Your task to perform on an android device: open app "Pluto TV - Live TV and Movies" (install if not already installed) and enter user name: "wools@yahoo.com" and password: "misplacing" Image 0: 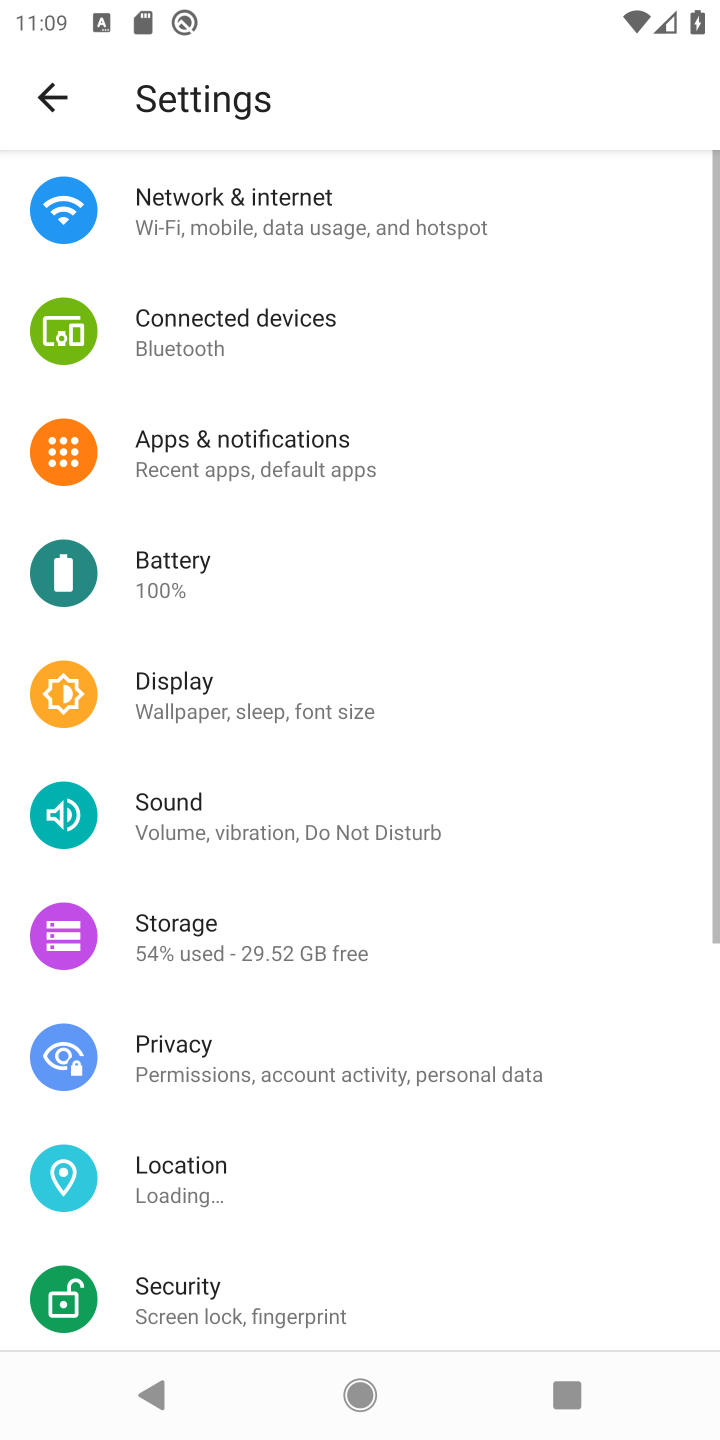
Step 0: press home button
Your task to perform on an android device: open app "Pluto TV - Live TV and Movies" (install if not already installed) and enter user name: "wools@yahoo.com" and password: "misplacing" Image 1: 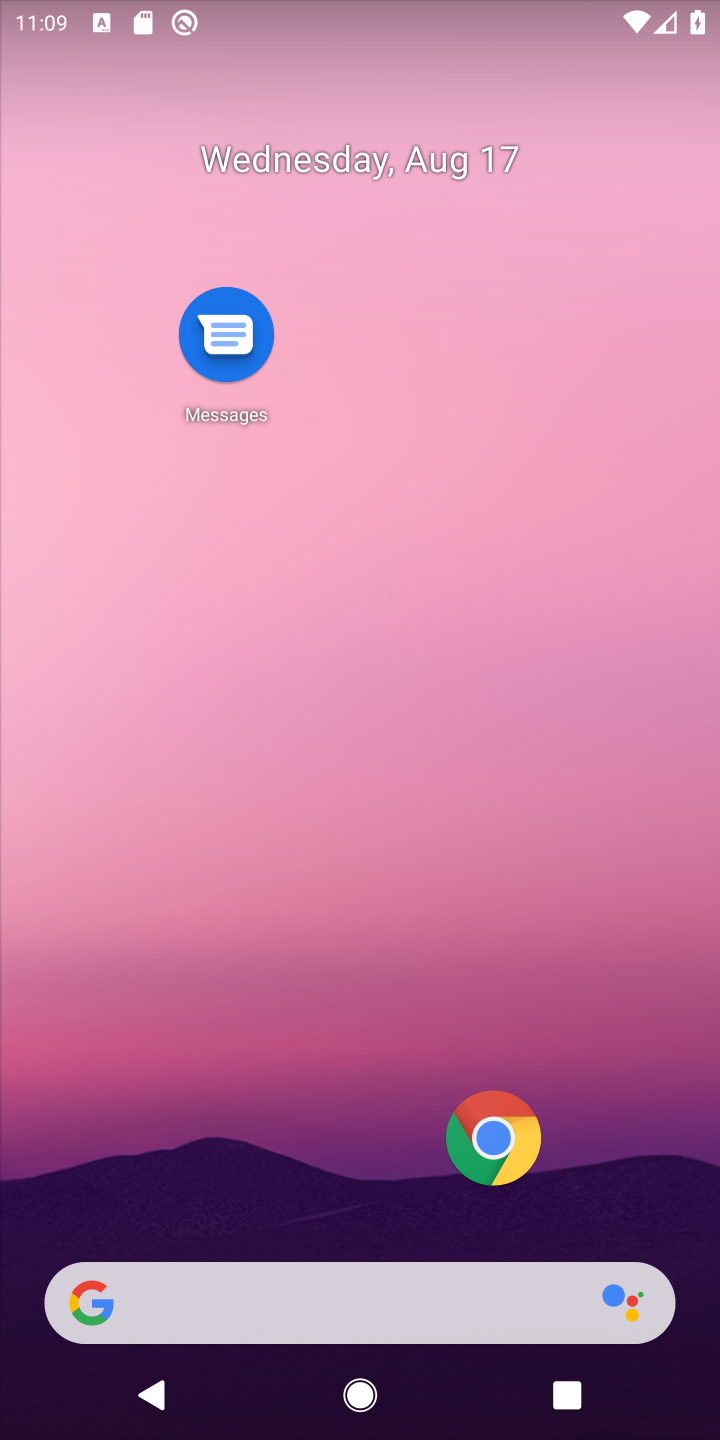
Step 1: drag from (309, 1201) to (309, 147)
Your task to perform on an android device: open app "Pluto TV - Live TV and Movies" (install if not already installed) and enter user name: "wools@yahoo.com" and password: "misplacing" Image 2: 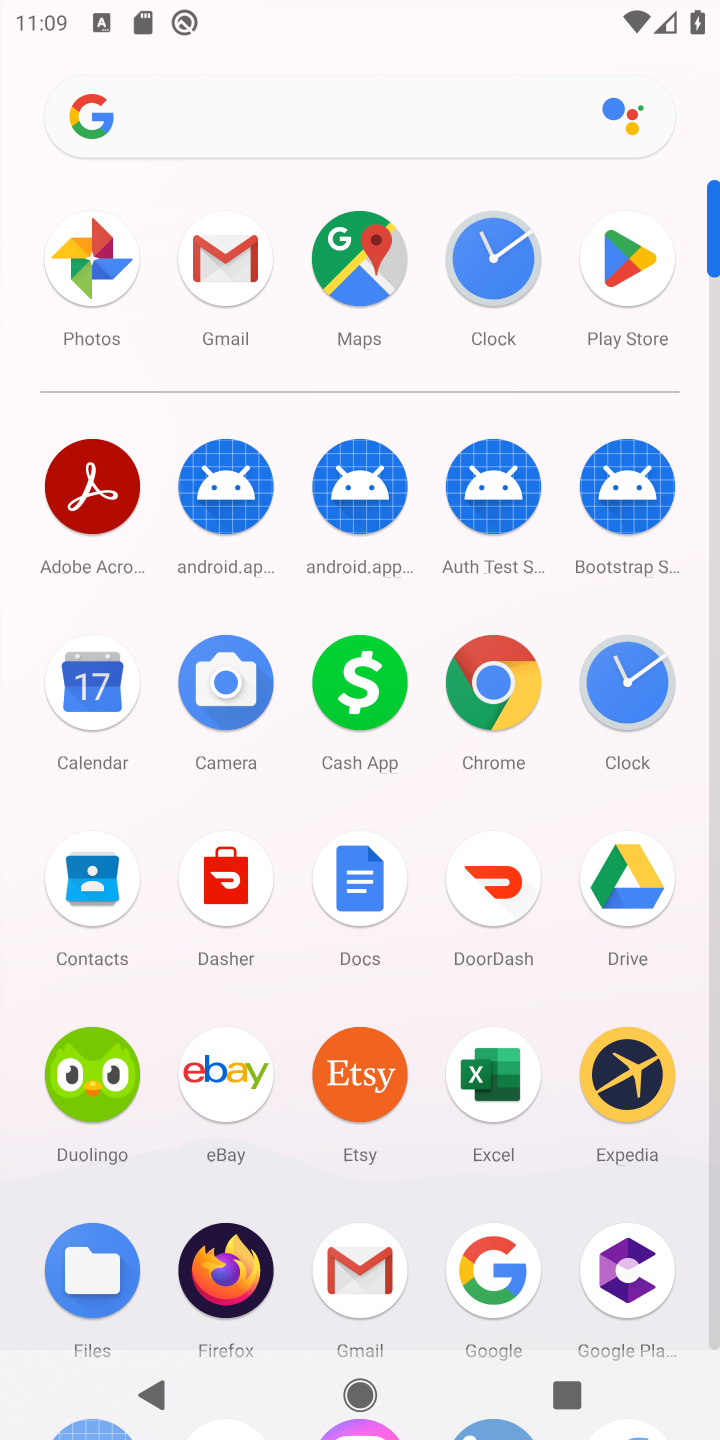
Step 2: click (611, 265)
Your task to perform on an android device: open app "Pluto TV - Live TV and Movies" (install if not already installed) and enter user name: "wools@yahoo.com" and password: "misplacing" Image 3: 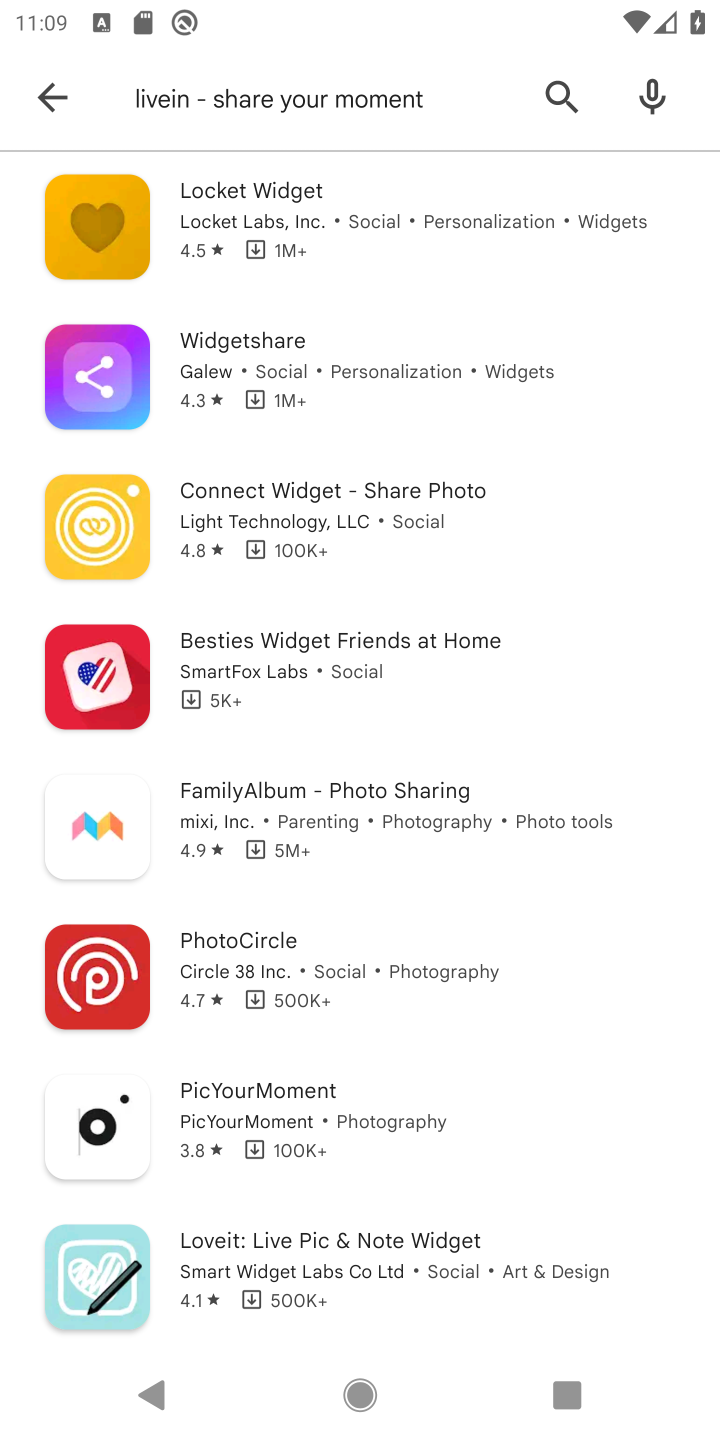
Step 3: click (80, 86)
Your task to perform on an android device: open app "Pluto TV - Live TV and Movies" (install if not already installed) and enter user name: "wools@yahoo.com" and password: "misplacing" Image 4: 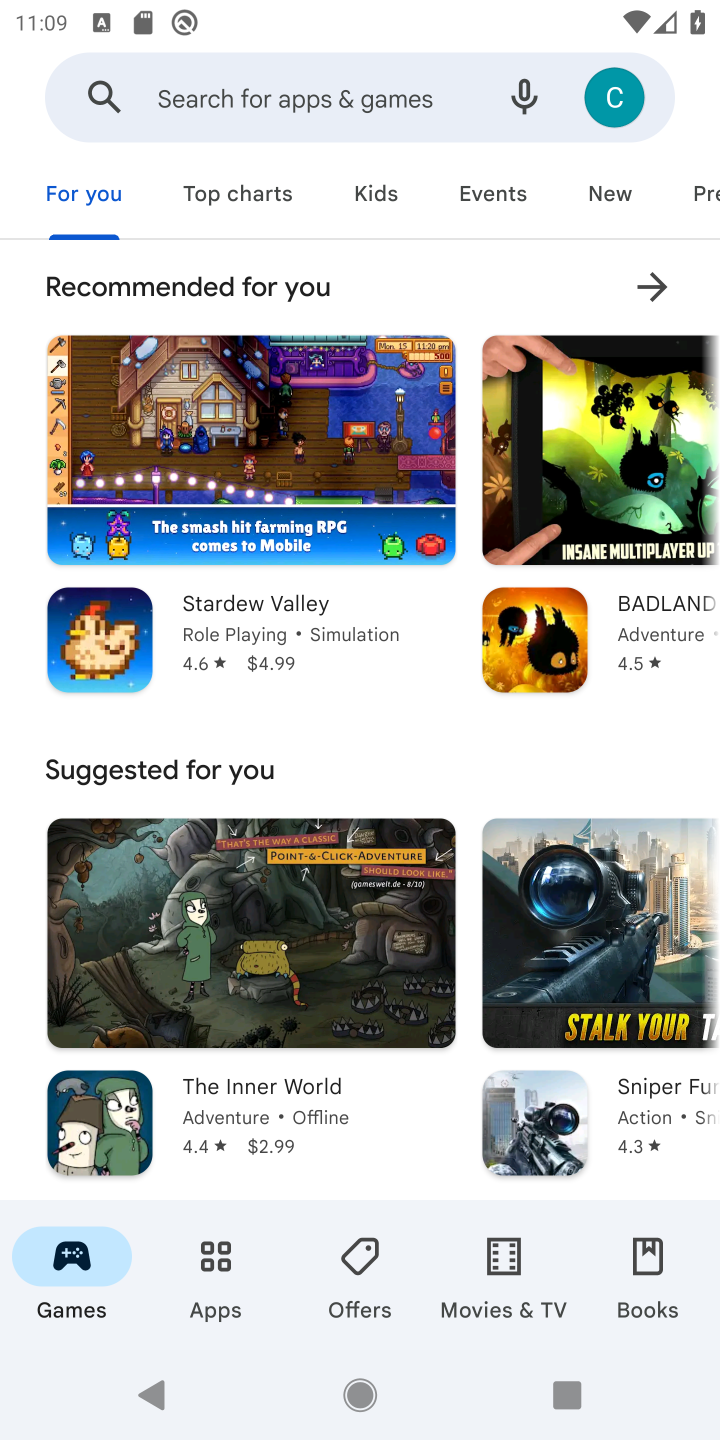
Step 4: click (245, 87)
Your task to perform on an android device: open app "Pluto TV - Live TV and Movies" (install if not already installed) and enter user name: "wools@yahoo.com" and password: "misplacing" Image 5: 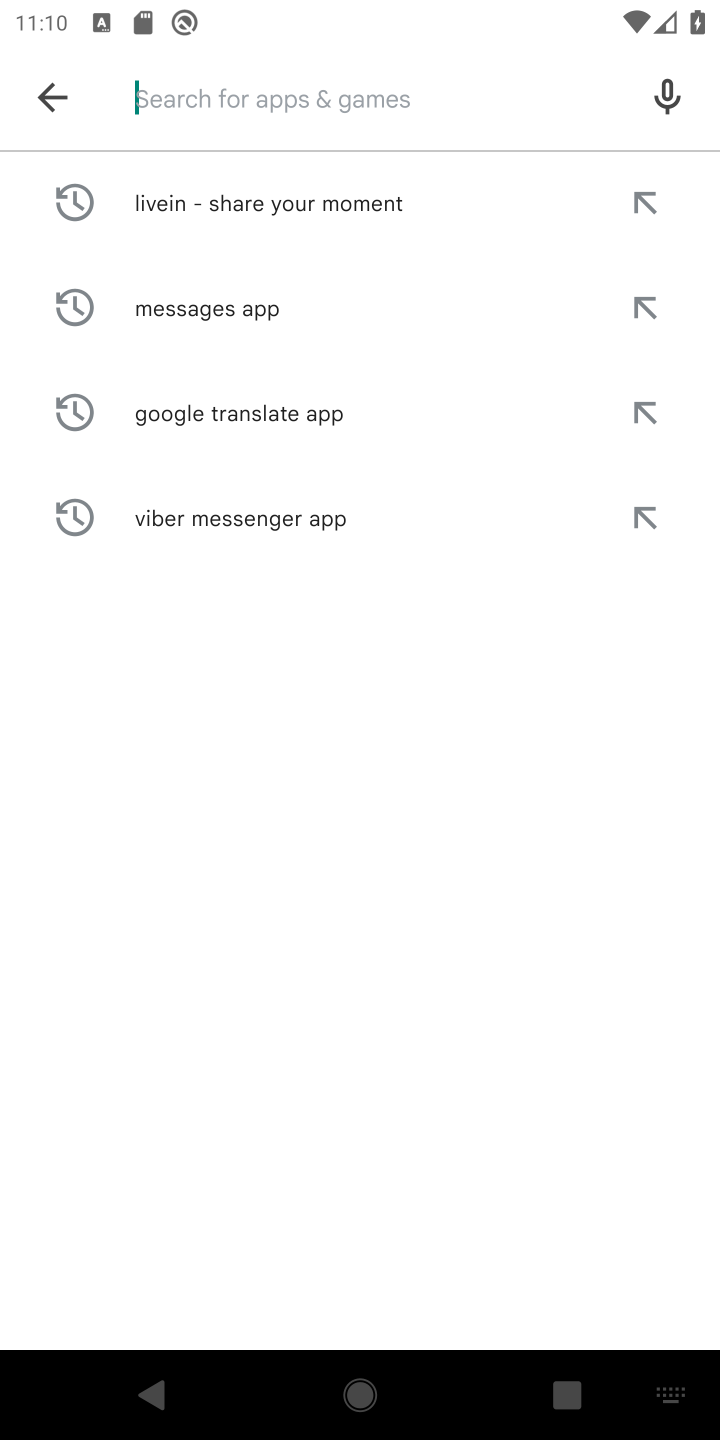
Step 5: type "Pluto TV - Live TV and Movies "
Your task to perform on an android device: open app "Pluto TV - Live TV and Movies" (install if not already installed) and enter user name: "wools@yahoo.com" and password: "misplacing" Image 6: 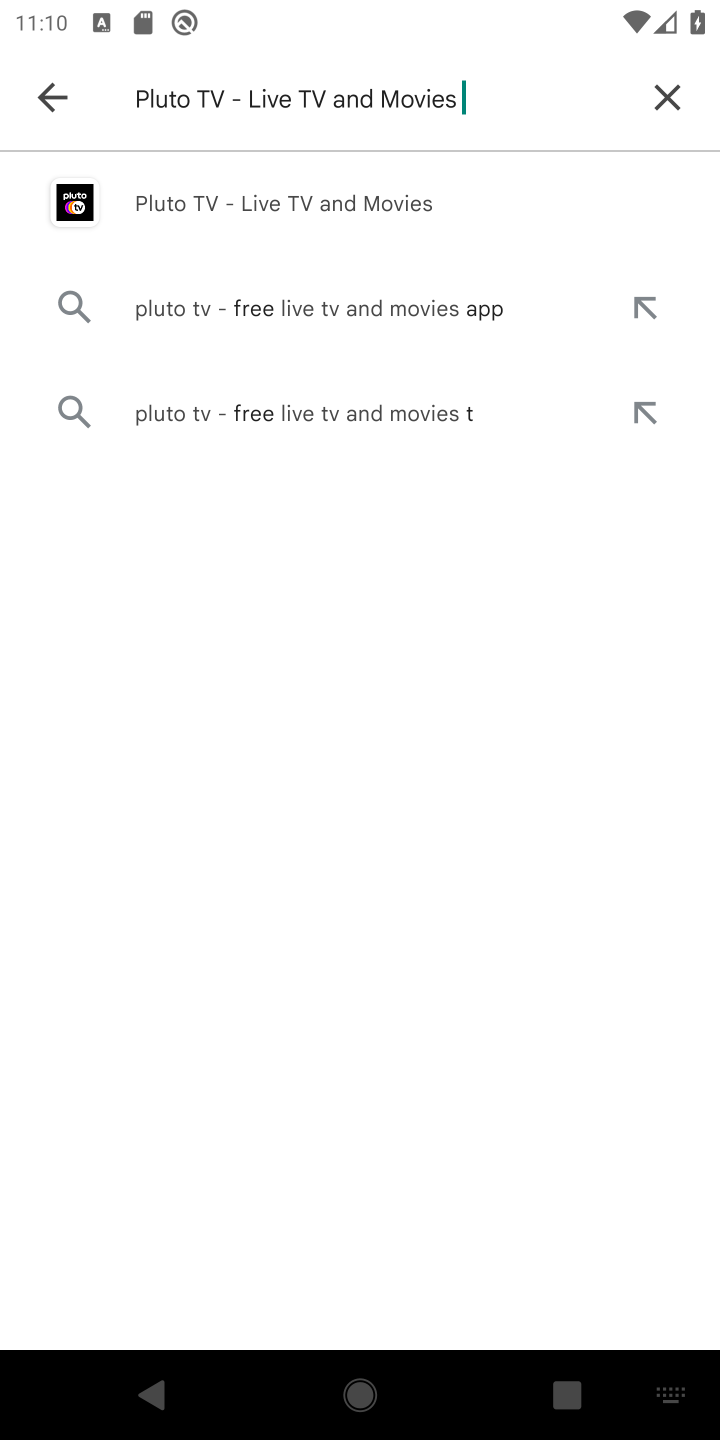
Step 6: click (289, 216)
Your task to perform on an android device: open app "Pluto TV - Live TV and Movies" (install if not already installed) and enter user name: "wools@yahoo.com" and password: "misplacing" Image 7: 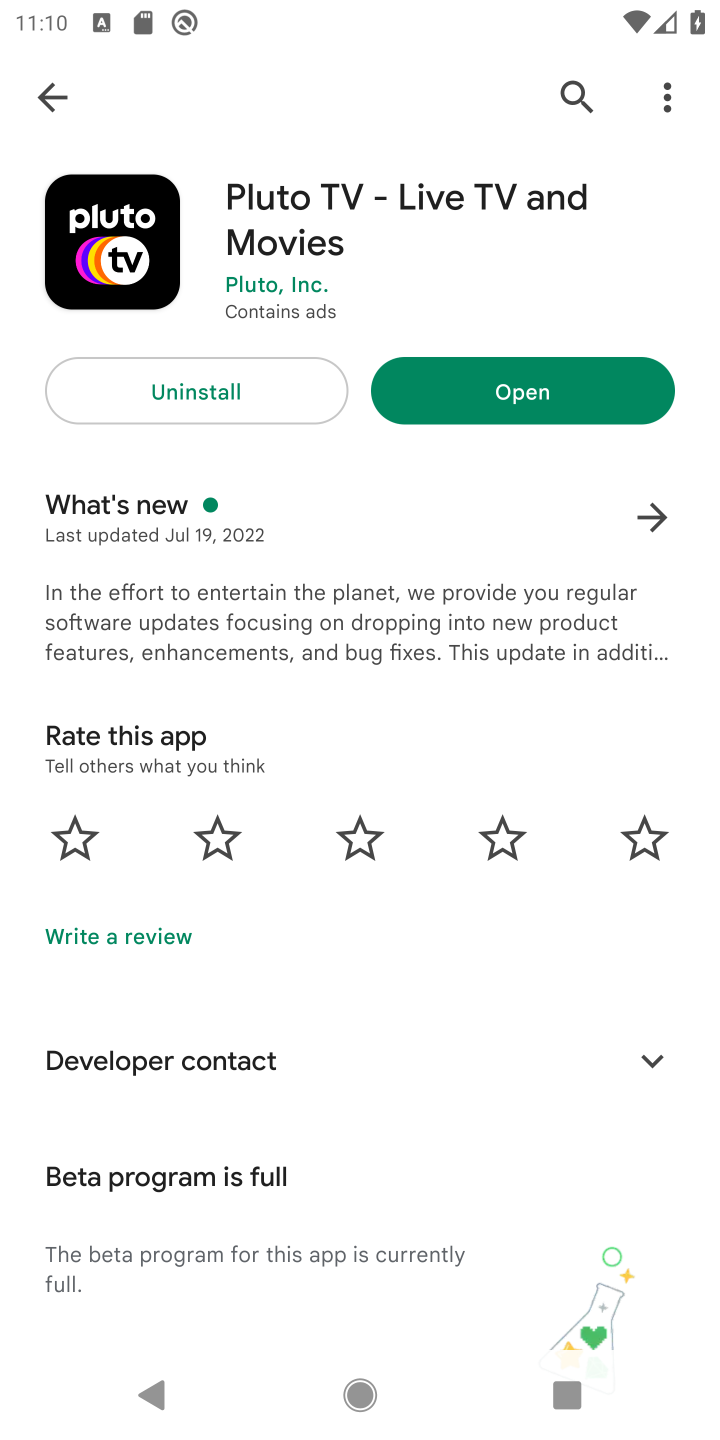
Step 7: click (511, 373)
Your task to perform on an android device: open app "Pluto TV - Live TV and Movies" (install if not already installed) and enter user name: "wools@yahoo.com" and password: "misplacing" Image 8: 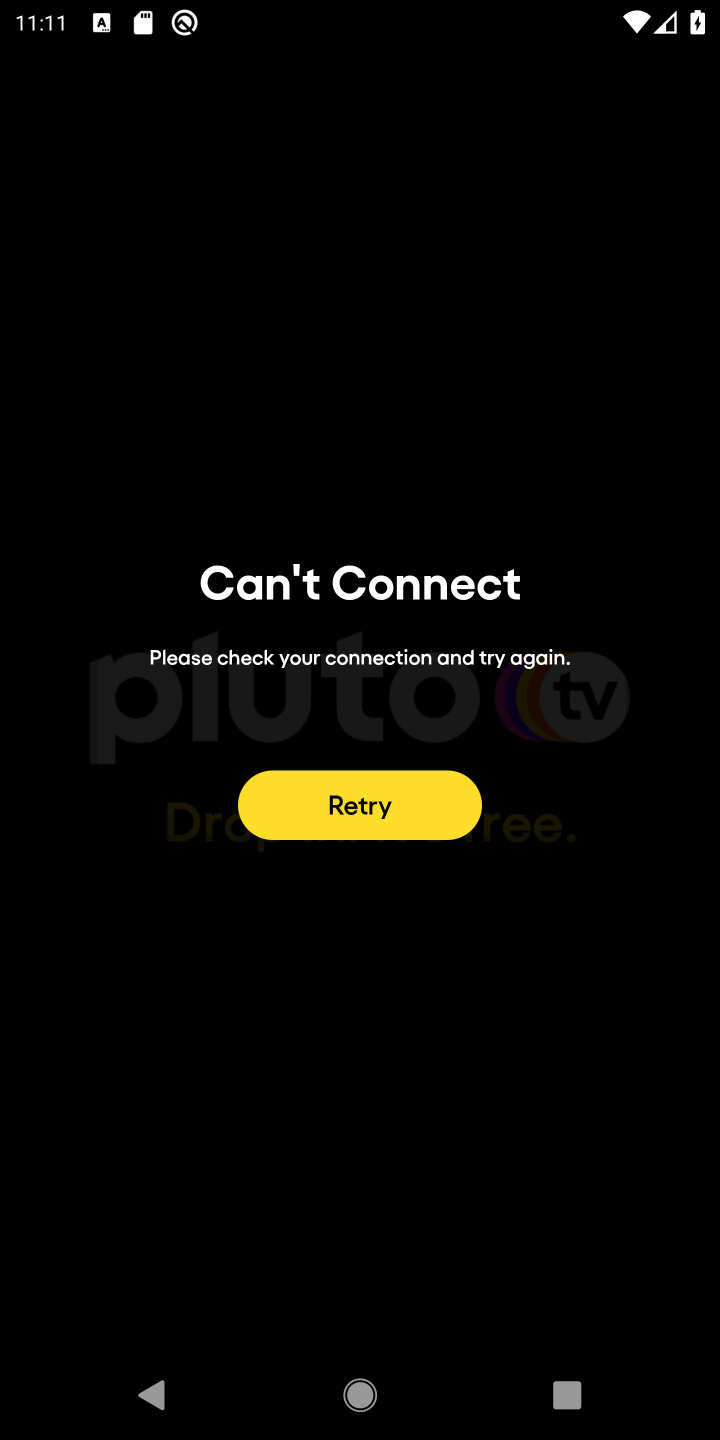
Step 8: task complete